Your task to perform on an android device: turn off notifications in google photos Image 0: 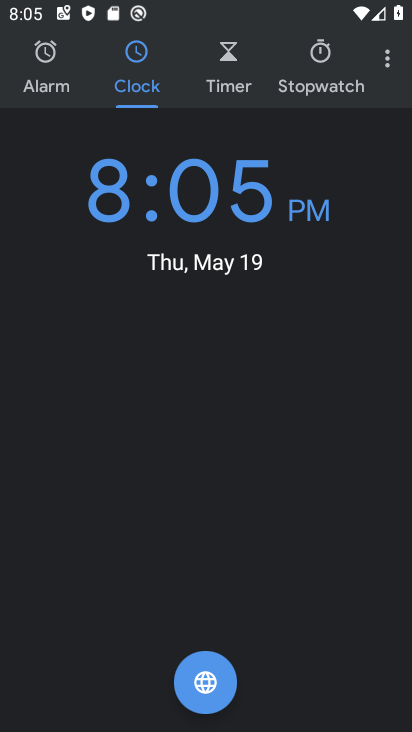
Step 0: press home button
Your task to perform on an android device: turn off notifications in google photos Image 1: 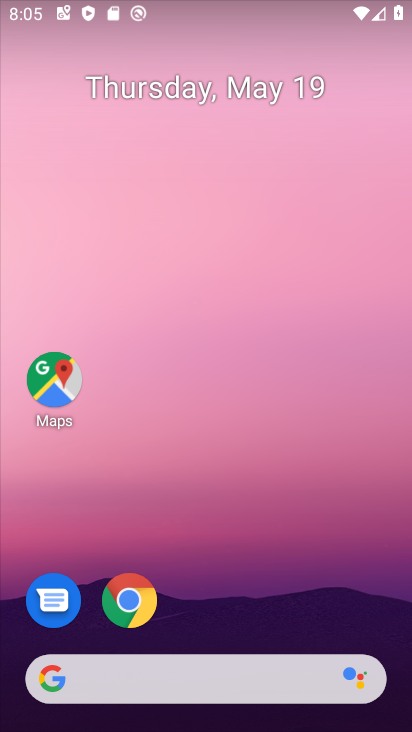
Step 1: drag from (206, 639) to (177, 9)
Your task to perform on an android device: turn off notifications in google photos Image 2: 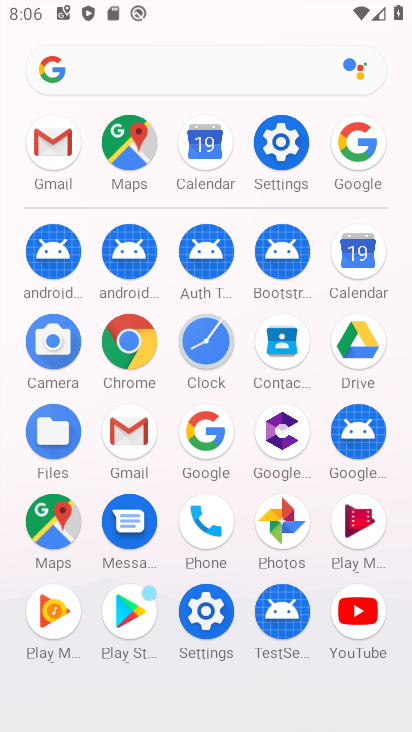
Step 2: click (283, 534)
Your task to perform on an android device: turn off notifications in google photos Image 3: 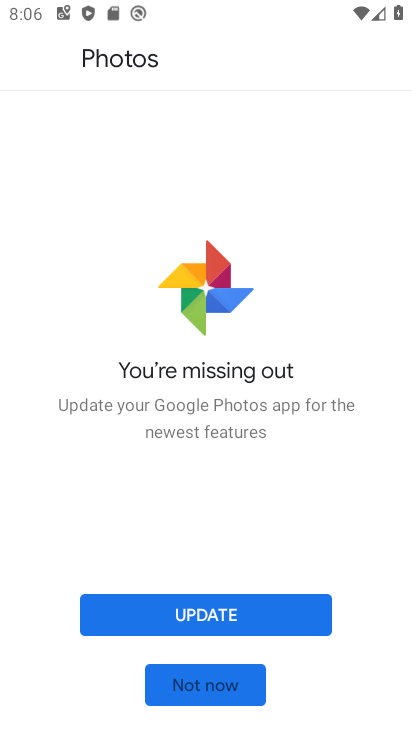
Step 3: click (199, 696)
Your task to perform on an android device: turn off notifications in google photos Image 4: 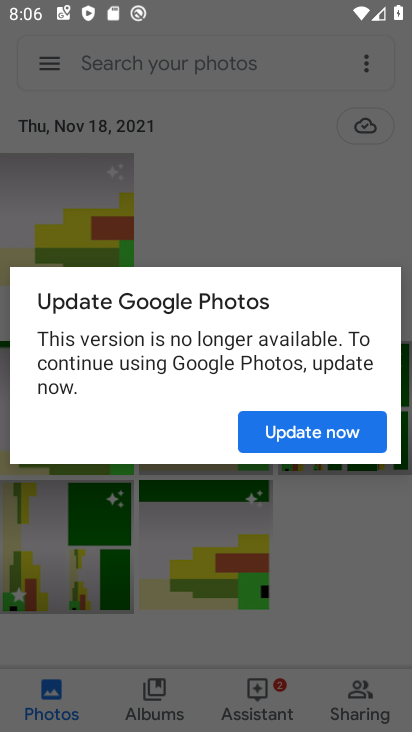
Step 4: click (299, 434)
Your task to perform on an android device: turn off notifications in google photos Image 5: 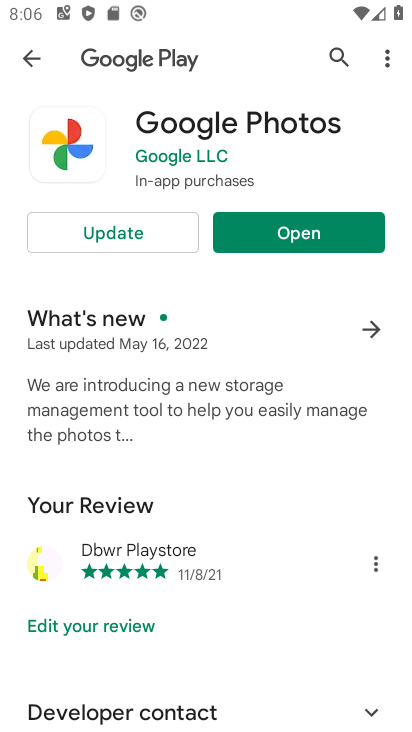
Step 5: click (311, 235)
Your task to perform on an android device: turn off notifications in google photos Image 6: 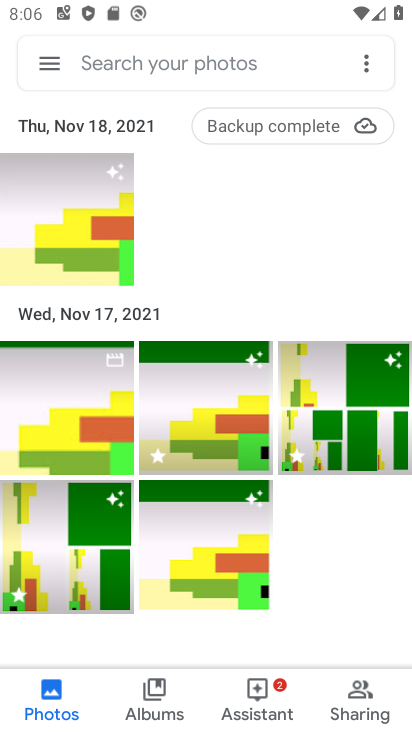
Step 6: click (45, 71)
Your task to perform on an android device: turn off notifications in google photos Image 7: 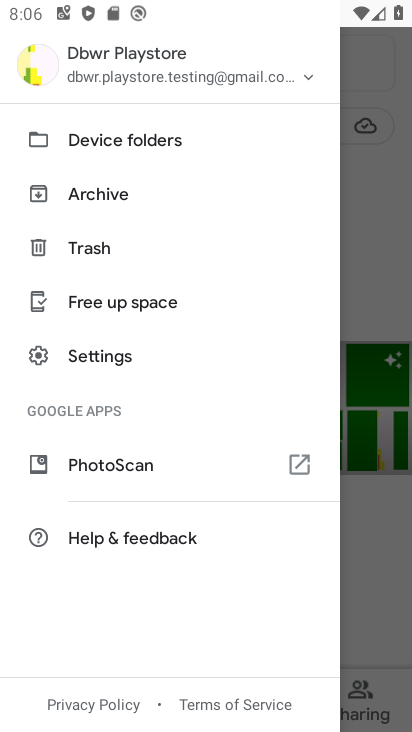
Step 7: click (82, 352)
Your task to perform on an android device: turn off notifications in google photos Image 8: 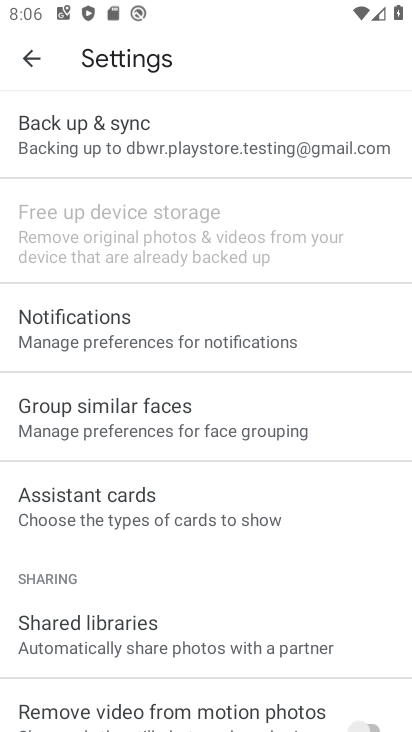
Step 8: click (82, 345)
Your task to perform on an android device: turn off notifications in google photos Image 9: 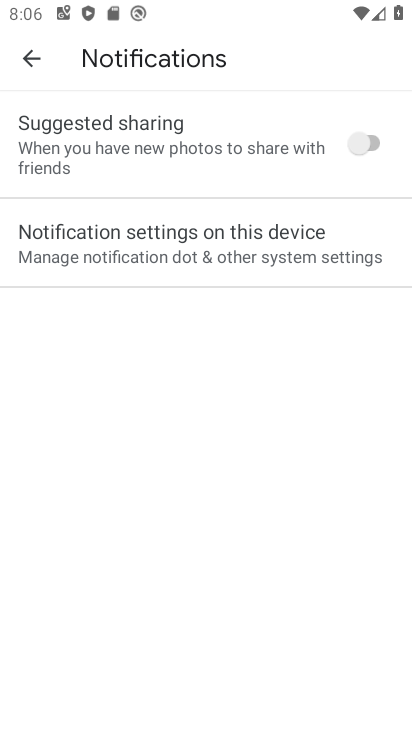
Step 9: click (160, 254)
Your task to perform on an android device: turn off notifications in google photos Image 10: 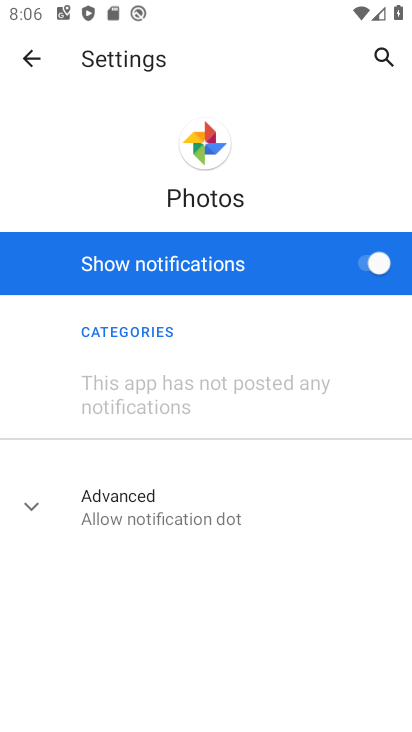
Step 10: click (380, 267)
Your task to perform on an android device: turn off notifications in google photos Image 11: 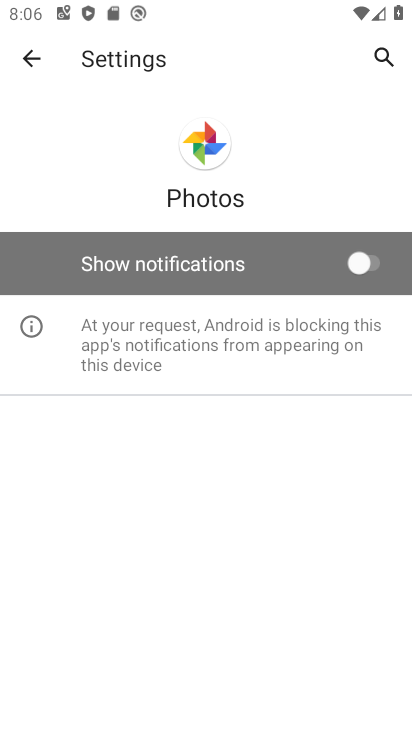
Step 11: task complete